Your task to perform on an android device: Go to Google Image 0: 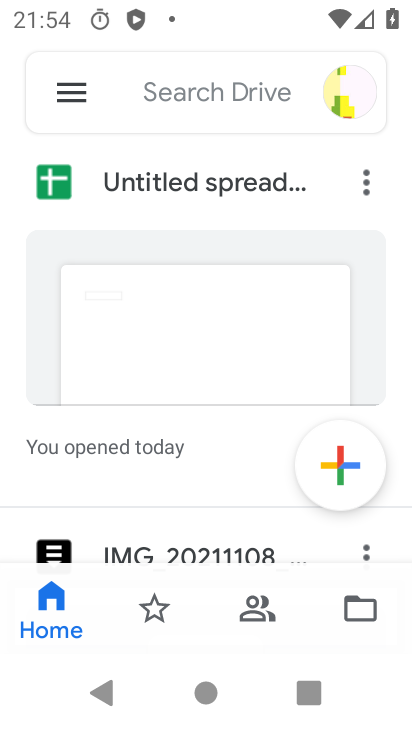
Step 0: press home button
Your task to perform on an android device: Go to Google Image 1: 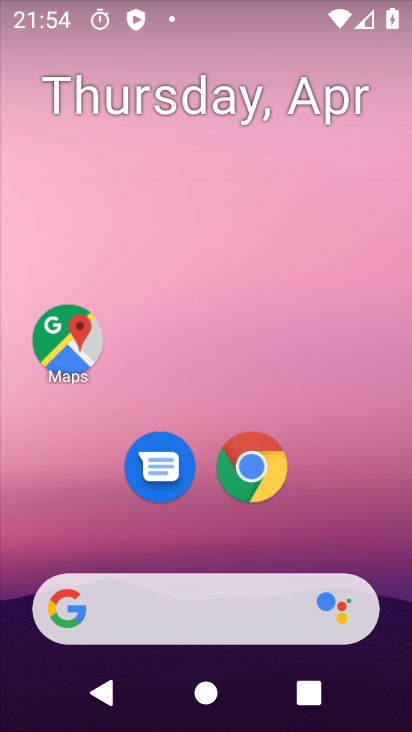
Step 1: drag from (198, 524) to (400, 609)
Your task to perform on an android device: Go to Google Image 2: 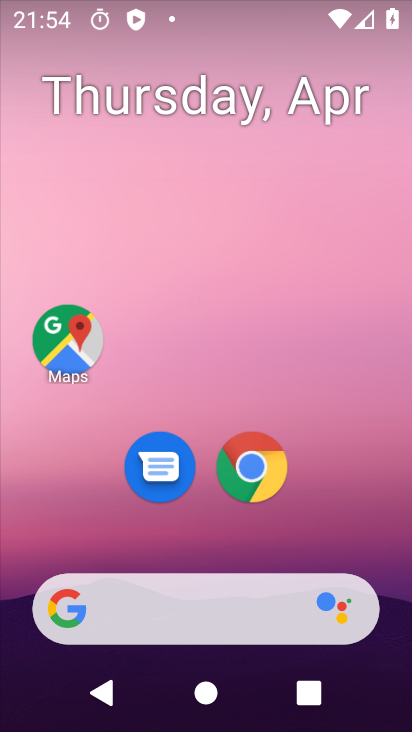
Step 2: drag from (225, 567) to (164, 0)
Your task to perform on an android device: Go to Google Image 3: 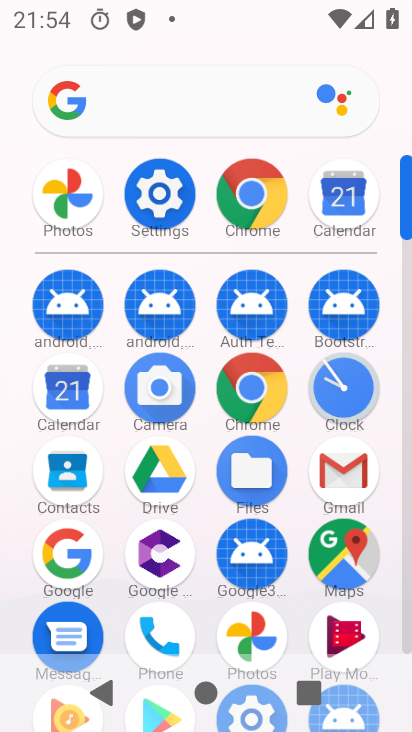
Step 3: click (52, 561)
Your task to perform on an android device: Go to Google Image 4: 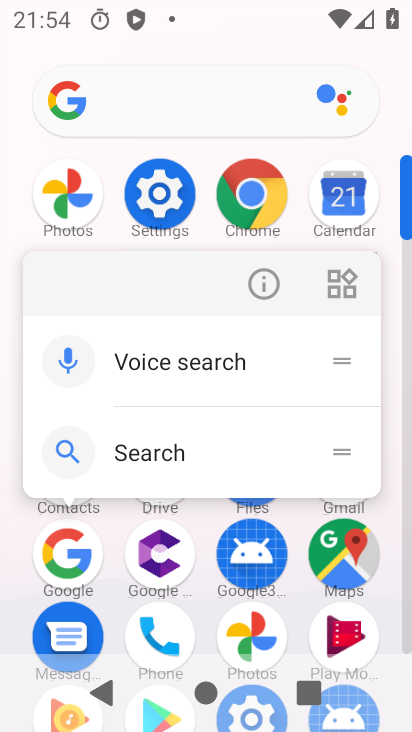
Step 4: click (69, 564)
Your task to perform on an android device: Go to Google Image 5: 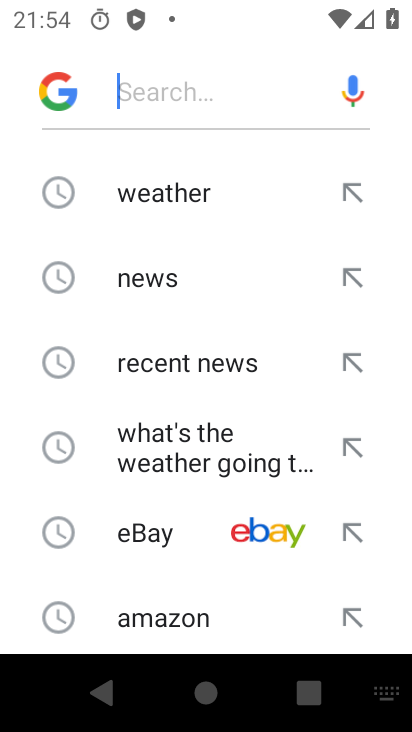
Step 5: task complete